Your task to perform on an android device: open chrome privacy settings Image 0: 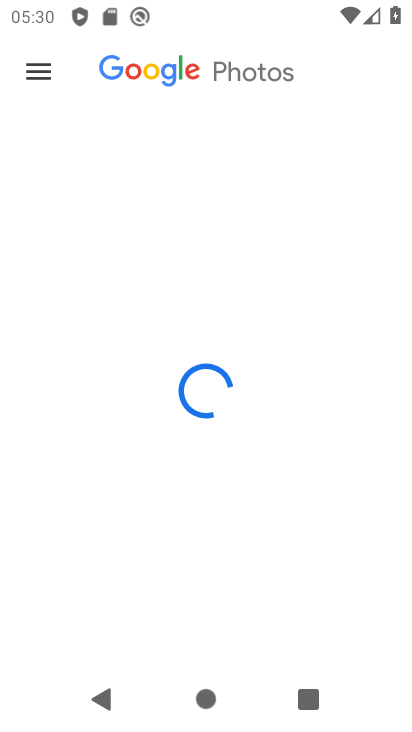
Step 0: press back button
Your task to perform on an android device: open chrome privacy settings Image 1: 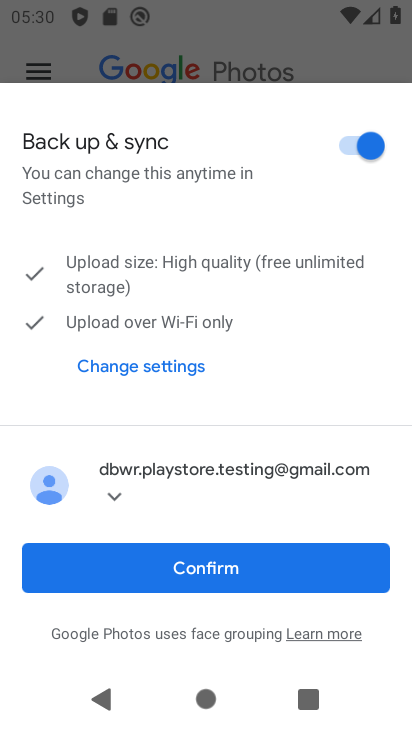
Step 1: press home button
Your task to perform on an android device: open chrome privacy settings Image 2: 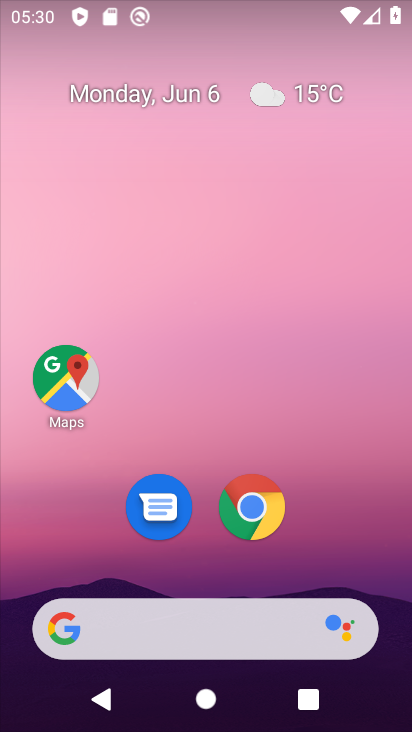
Step 2: click (241, 498)
Your task to perform on an android device: open chrome privacy settings Image 3: 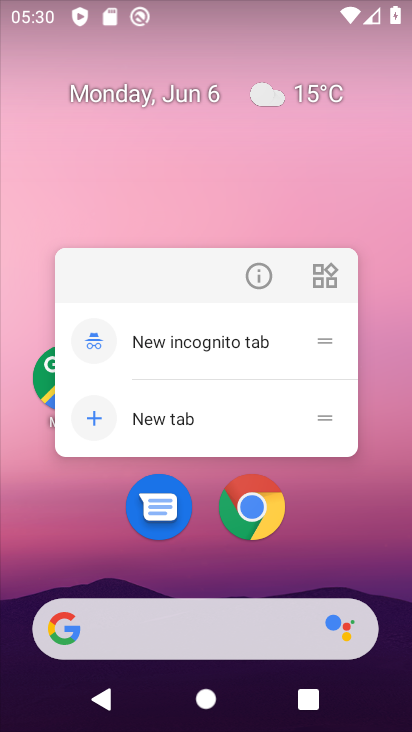
Step 3: click (265, 516)
Your task to perform on an android device: open chrome privacy settings Image 4: 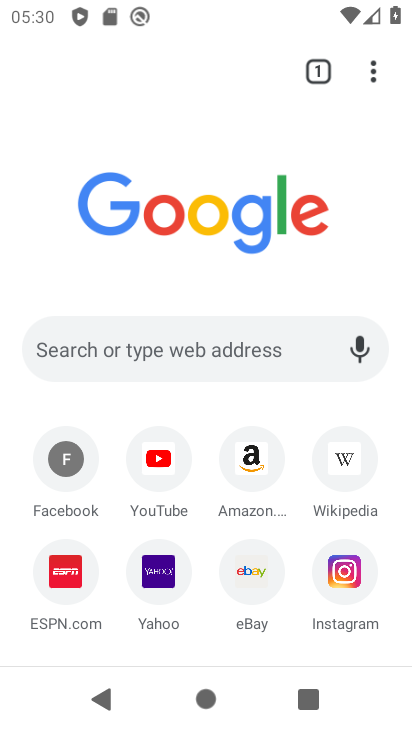
Step 4: click (371, 69)
Your task to perform on an android device: open chrome privacy settings Image 5: 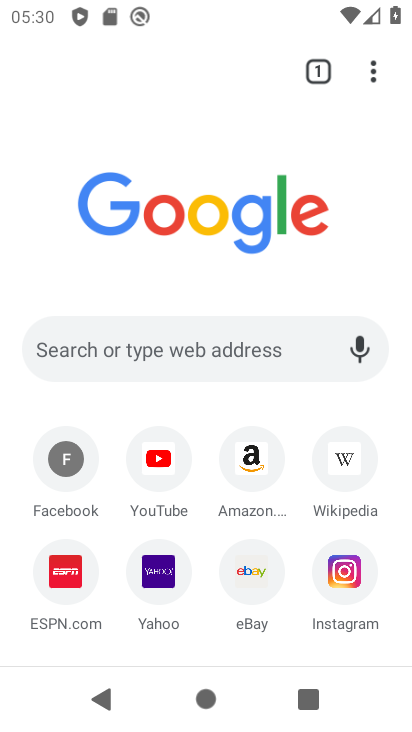
Step 5: click (371, 67)
Your task to perform on an android device: open chrome privacy settings Image 6: 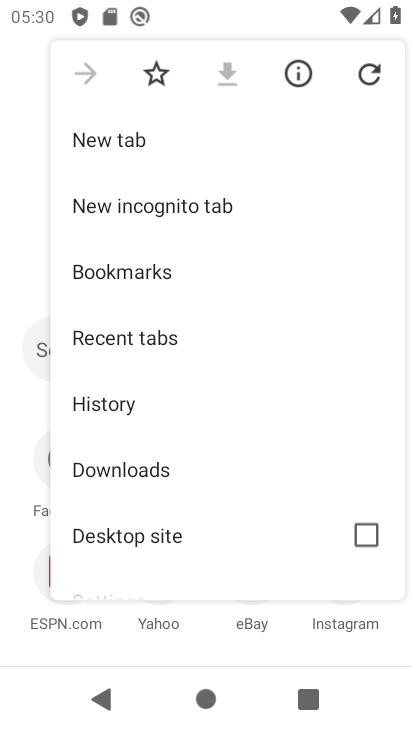
Step 6: drag from (151, 509) to (238, 314)
Your task to perform on an android device: open chrome privacy settings Image 7: 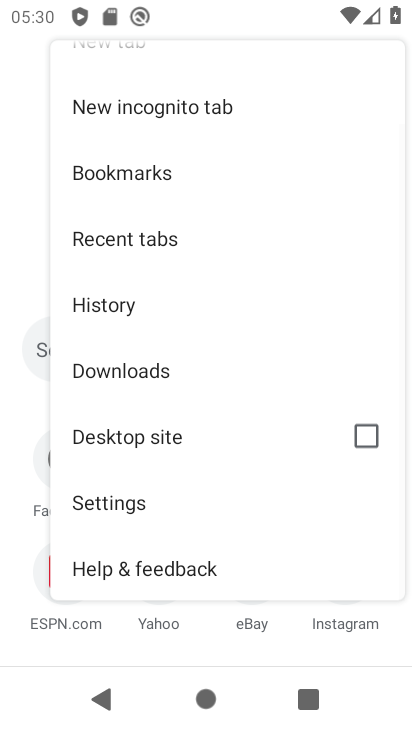
Step 7: click (132, 508)
Your task to perform on an android device: open chrome privacy settings Image 8: 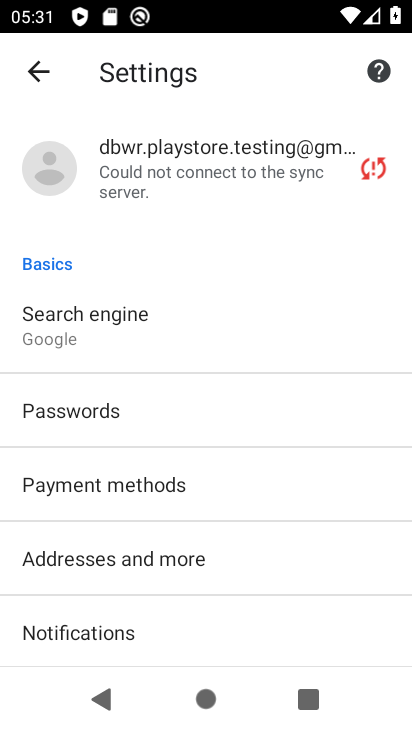
Step 8: drag from (125, 574) to (139, 295)
Your task to perform on an android device: open chrome privacy settings Image 9: 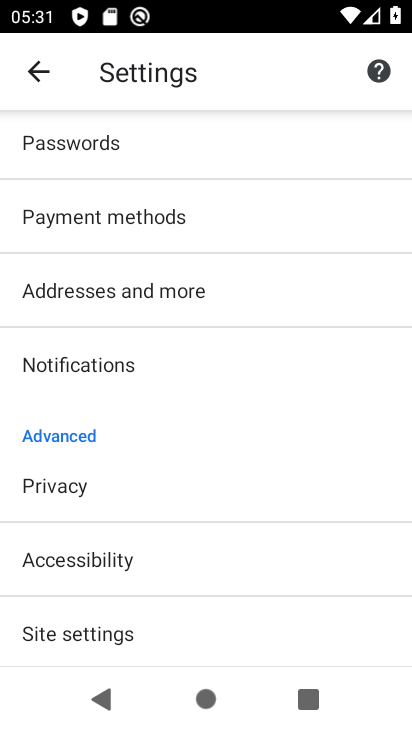
Step 9: click (81, 497)
Your task to perform on an android device: open chrome privacy settings Image 10: 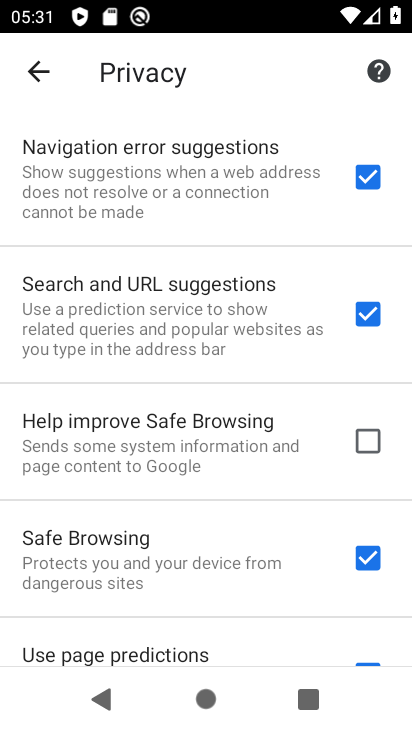
Step 10: task complete